Your task to perform on an android device: open chrome and create a bookmark for the current page Image 0: 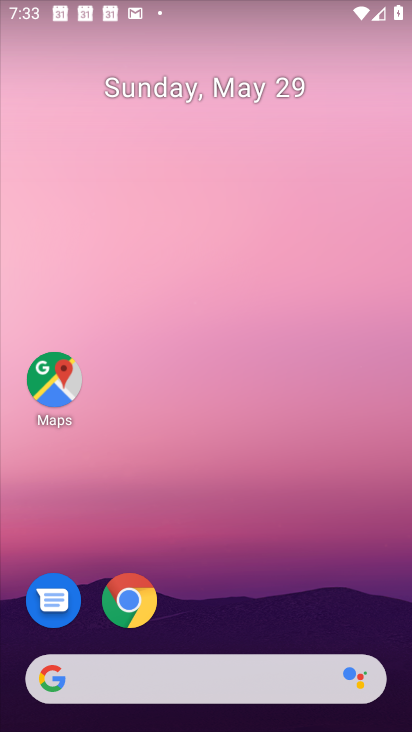
Step 0: drag from (351, 614) to (275, 212)
Your task to perform on an android device: open chrome and create a bookmark for the current page Image 1: 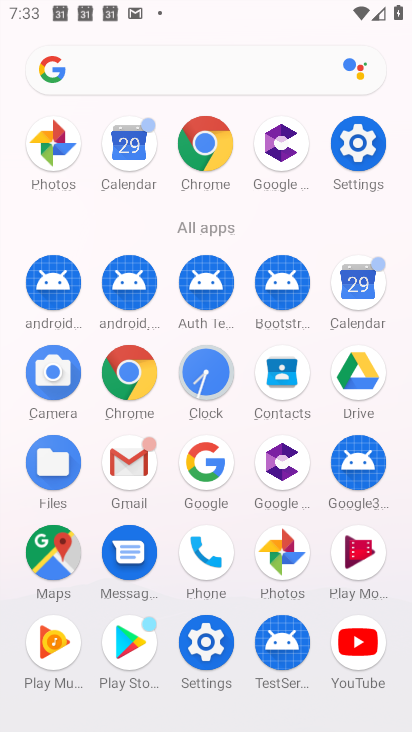
Step 1: click (117, 373)
Your task to perform on an android device: open chrome and create a bookmark for the current page Image 2: 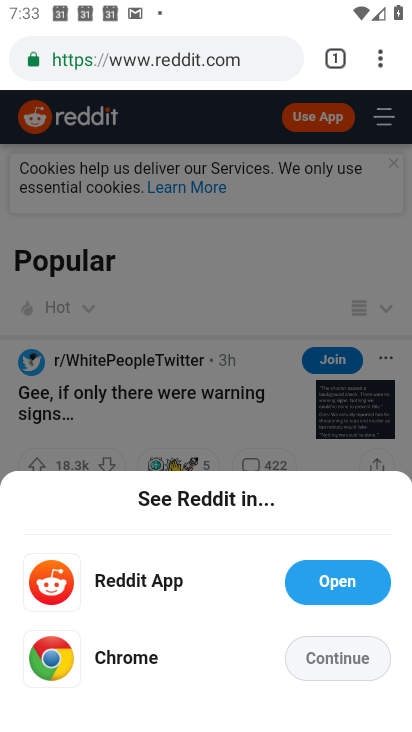
Step 2: task complete